Your task to perform on an android device: Search for the Best selling coffee table on Ikea Image 0: 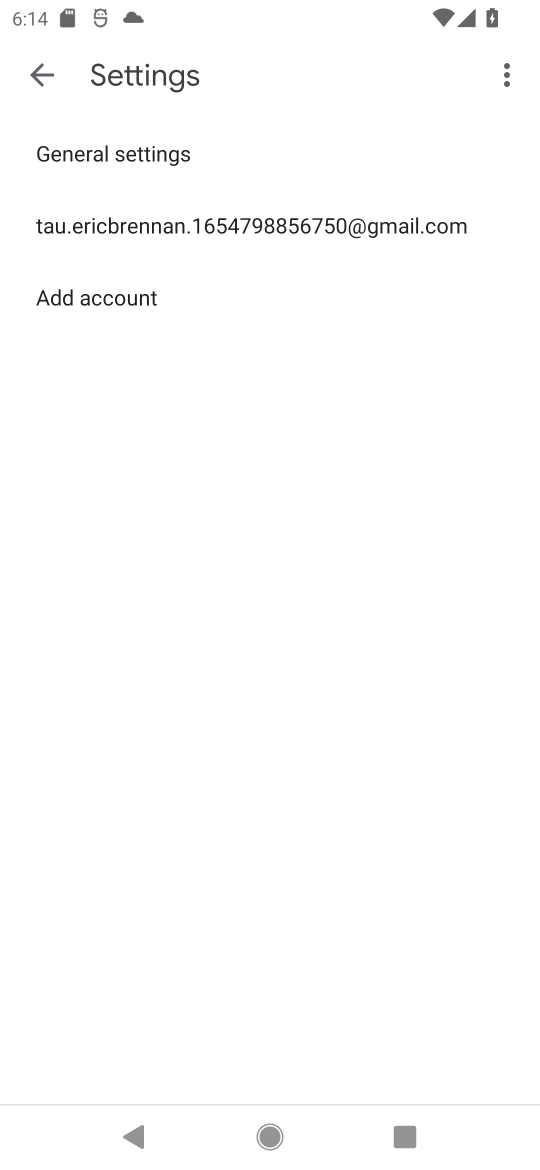
Step 0: press home button
Your task to perform on an android device: Search for the Best selling coffee table on Ikea Image 1: 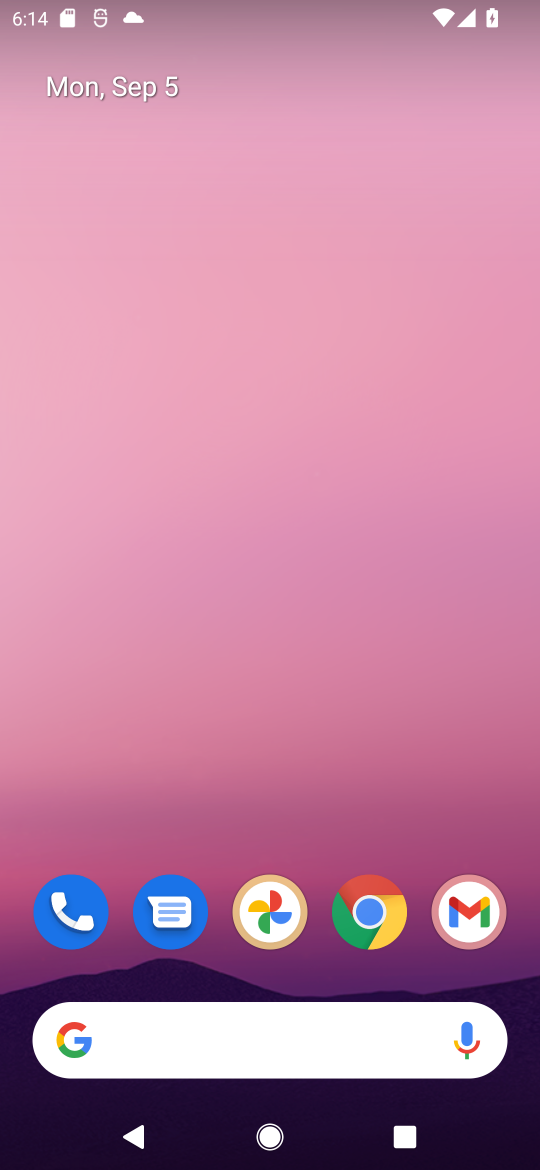
Step 1: click (364, 926)
Your task to perform on an android device: Search for the Best selling coffee table on Ikea Image 2: 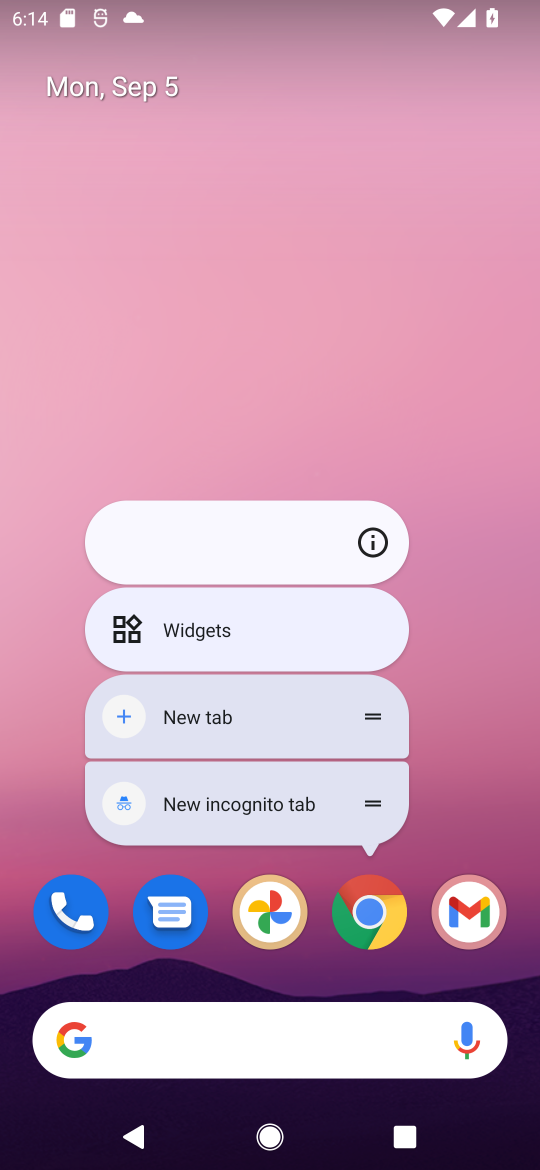
Step 2: click (362, 540)
Your task to perform on an android device: Search for the Best selling coffee table on Ikea Image 3: 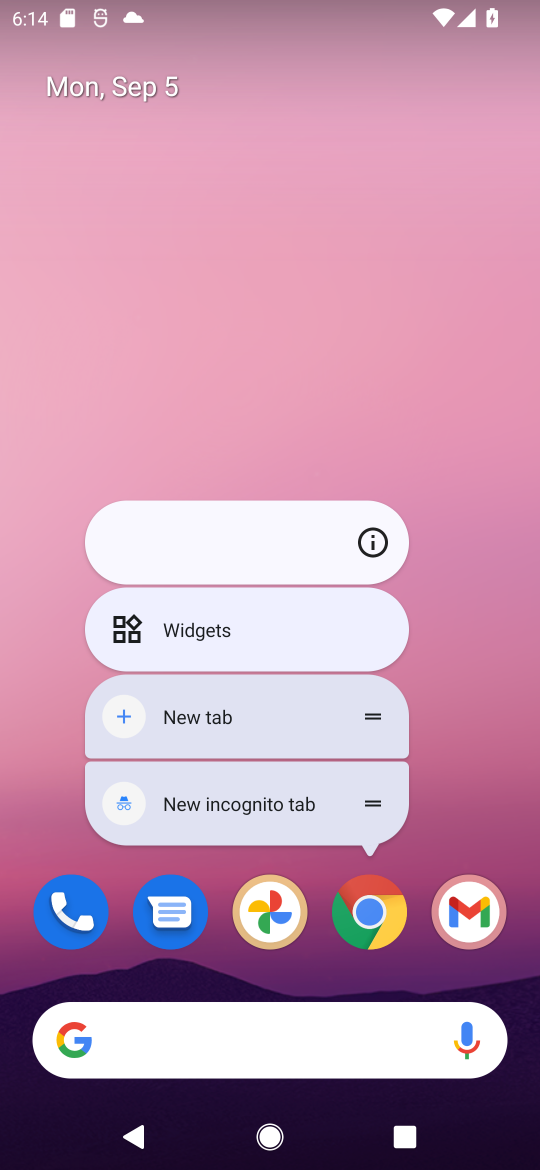
Step 3: click (362, 540)
Your task to perform on an android device: Search for the Best selling coffee table on Ikea Image 4: 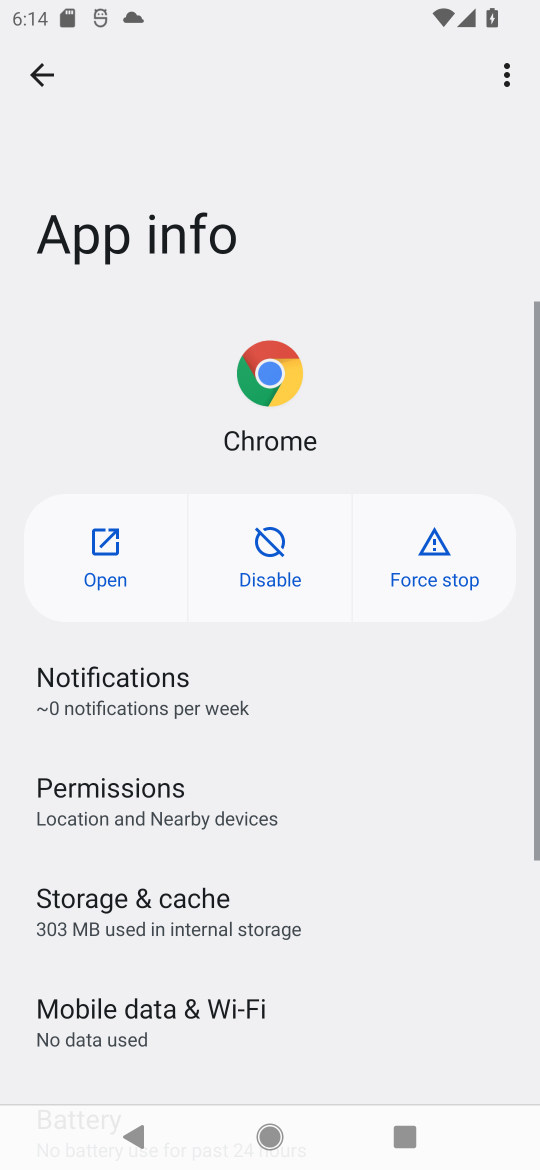
Step 4: click (110, 545)
Your task to perform on an android device: Search for the Best selling coffee table on Ikea Image 5: 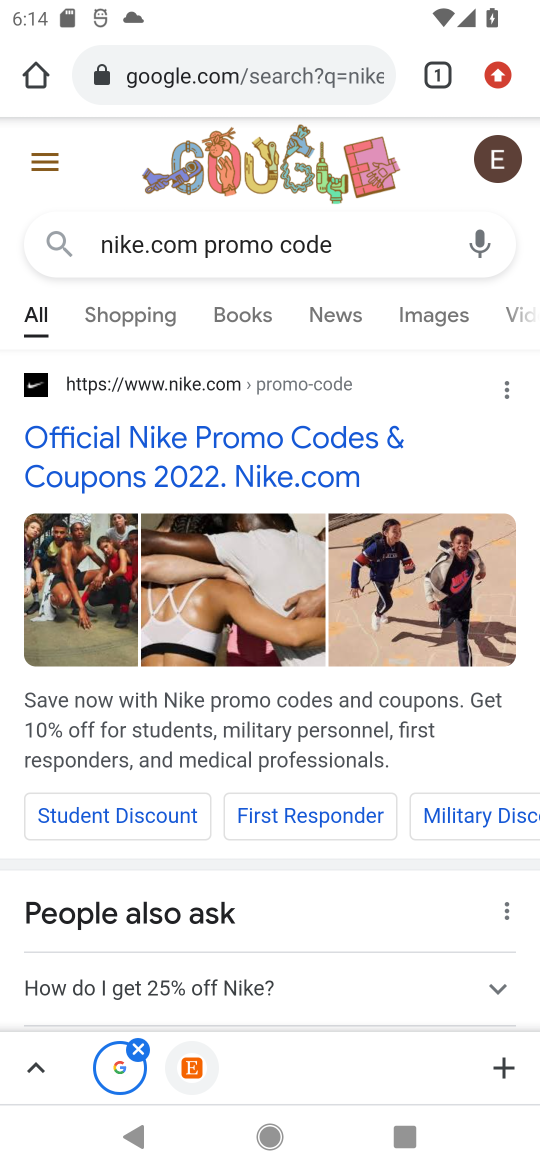
Step 5: click (190, 65)
Your task to perform on an android device: Search for the Best selling coffee table on Ikea Image 6: 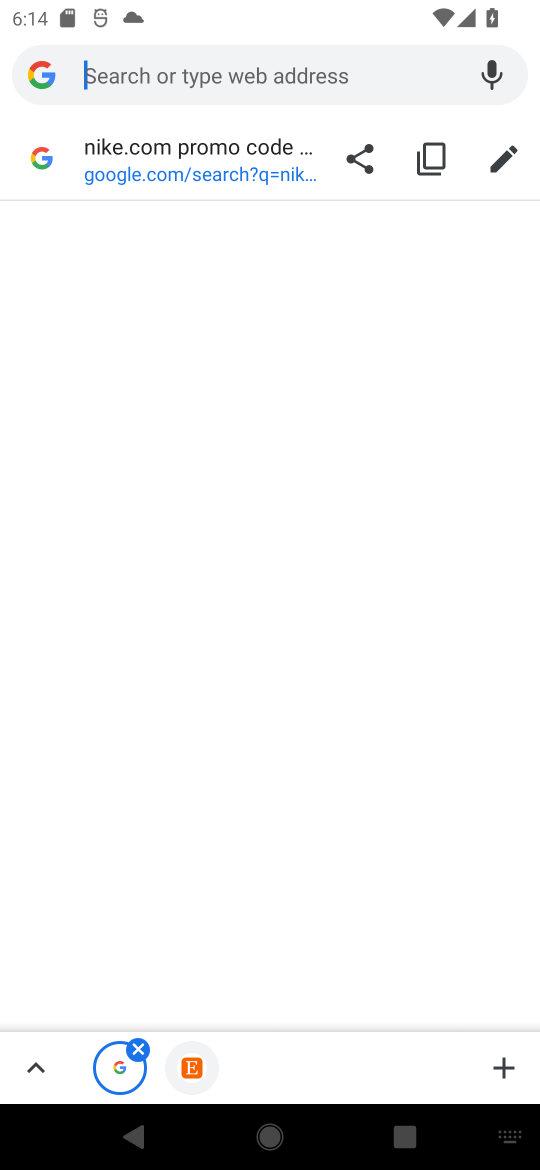
Step 6: type "Ikea"
Your task to perform on an android device: Search for the Best selling coffee table on Ikea Image 7: 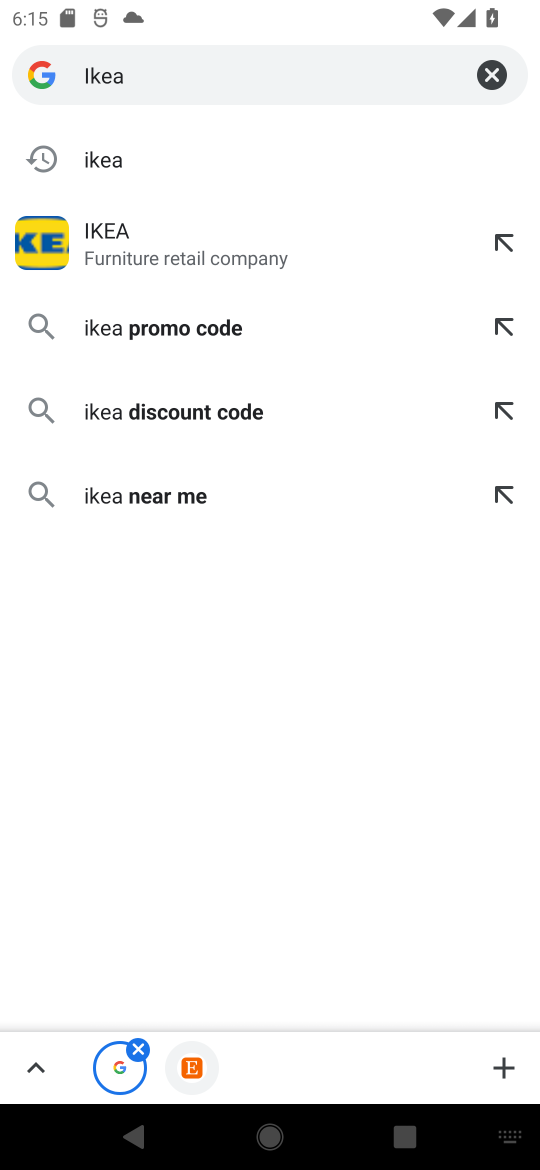
Step 7: click (189, 248)
Your task to perform on an android device: Search for the Best selling coffee table on Ikea Image 8: 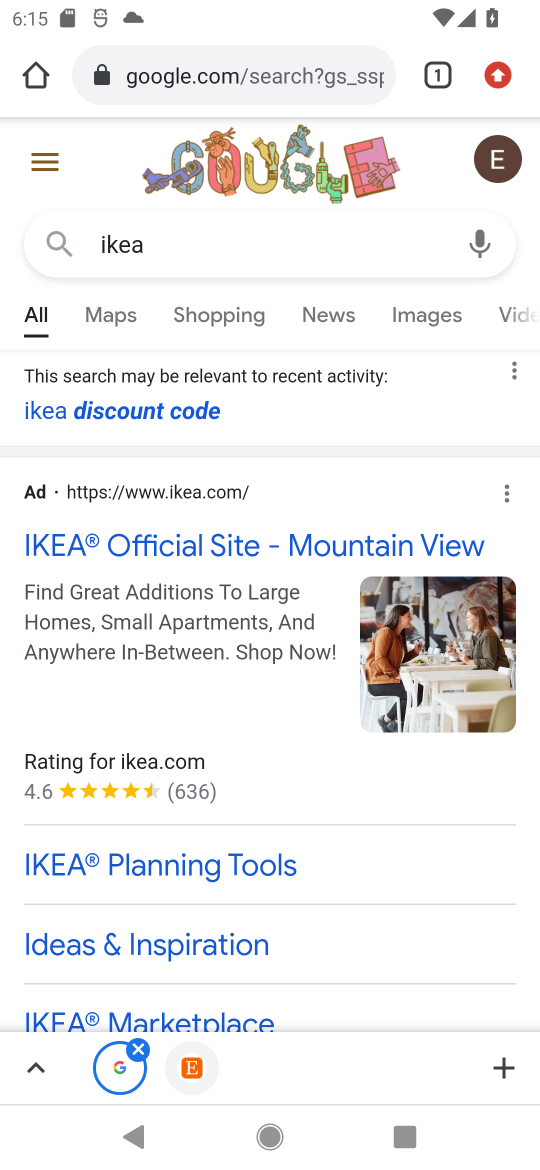
Step 8: click (141, 556)
Your task to perform on an android device: Search for the Best selling coffee table on Ikea Image 9: 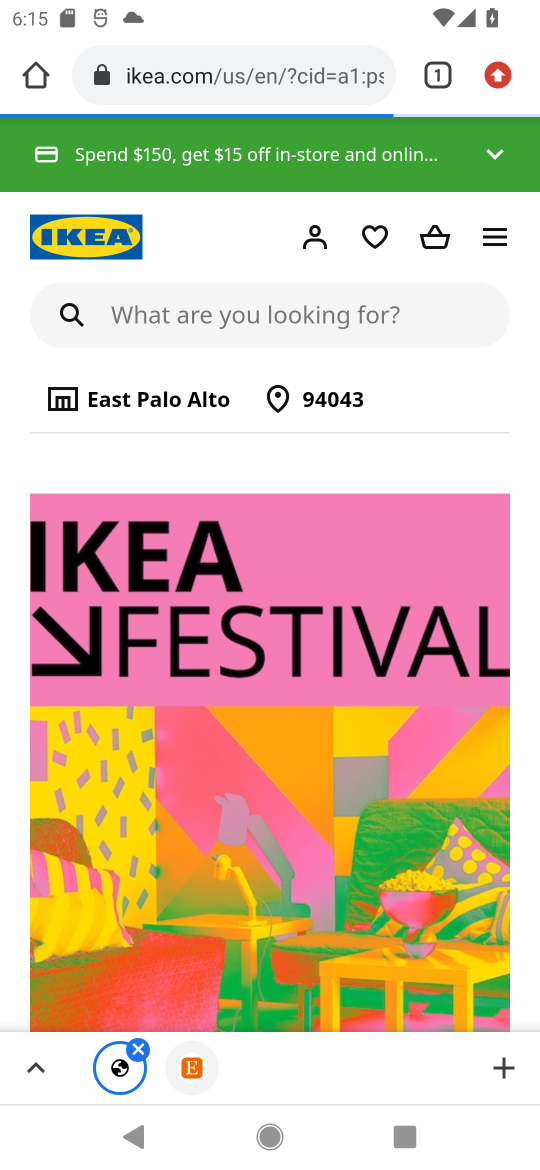
Step 9: click (306, 303)
Your task to perform on an android device: Search for the Best selling coffee table on Ikea Image 10: 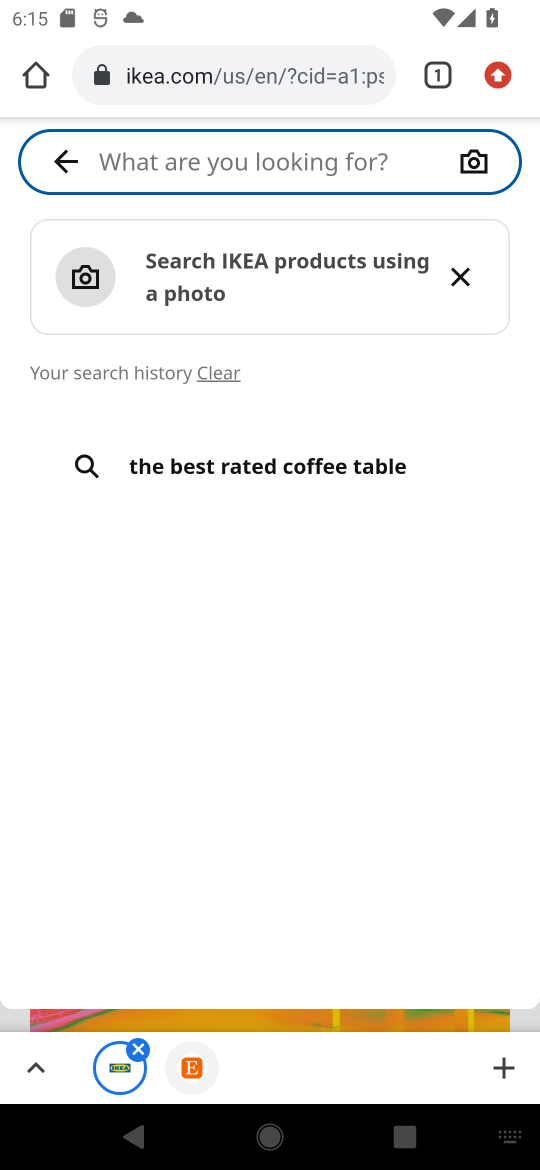
Step 10: click (374, 1169)
Your task to perform on an android device: Search for the Best selling coffee table on Ikea Image 11: 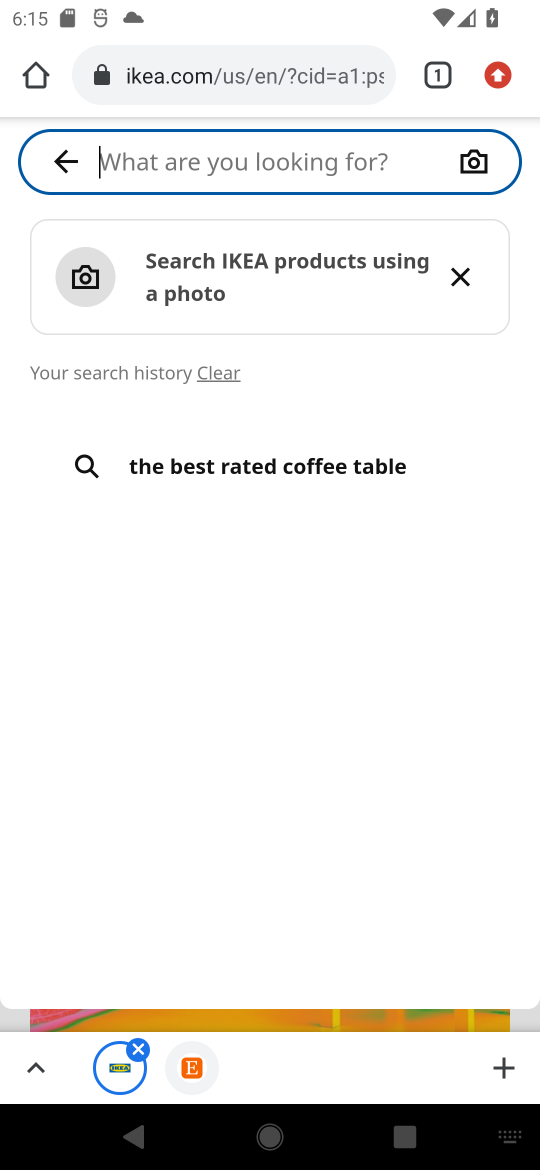
Step 11: type "the Best selling coffee table"
Your task to perform on an android device: Search for the Best selling coffee table on Ikea Image 12: 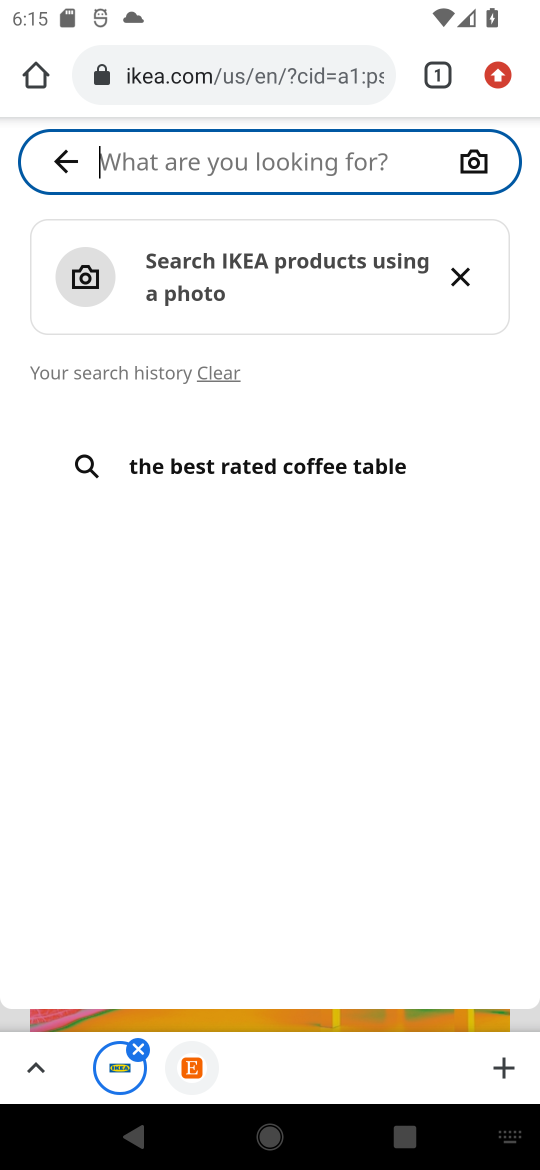
Step 12: drag from (374, 1169) to (480, 59)
Your task to perform on an android device: Search for the Best selling coffee table on Ikea Image 13: 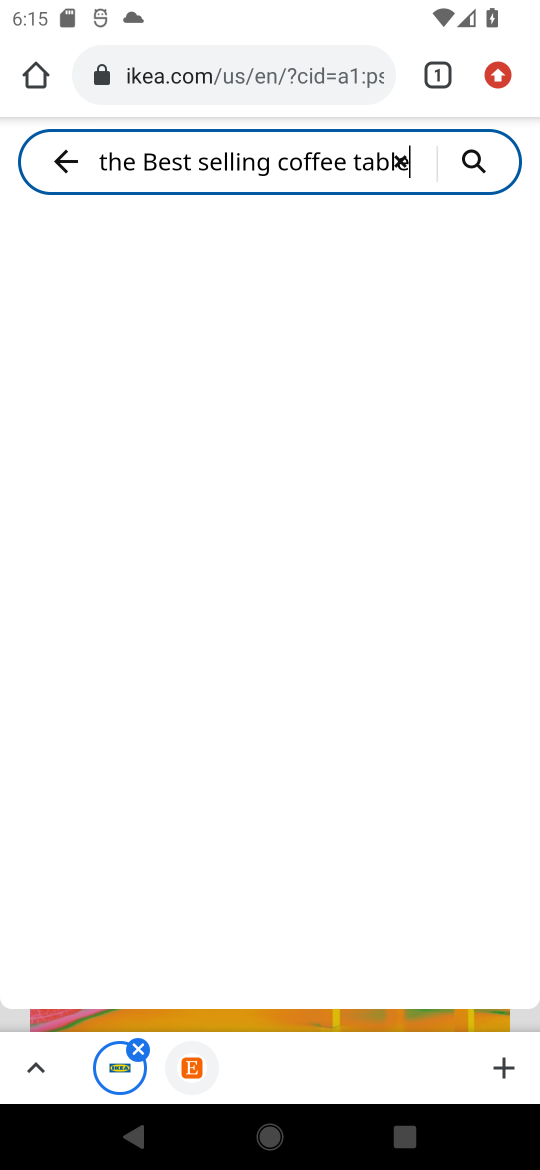
Step 13: click (473, 164)
Your task to perform on an android device: Search for the Best selling coffee table on Ikea Image 14: 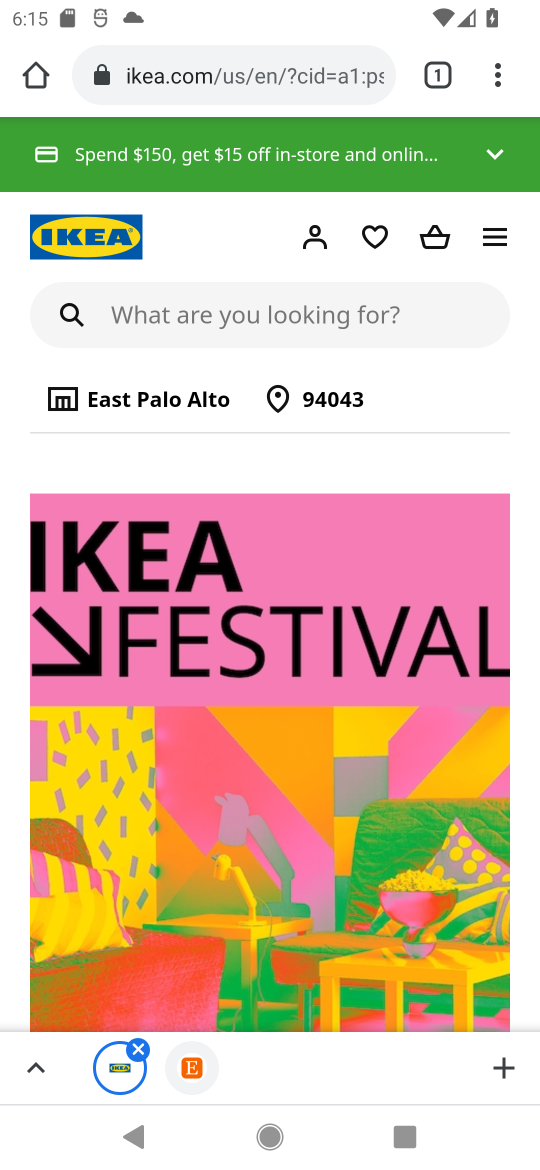
Step 14: click (350, 310)
Your task to perform on an android device: Search for the Best selling coffee table on Ikea Image 15: 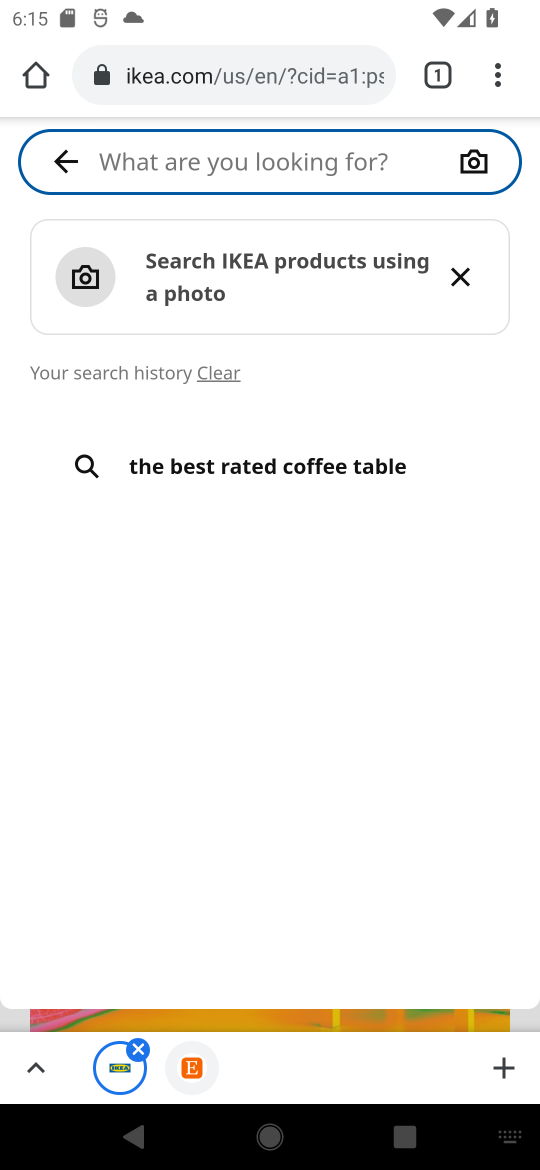
Step 15: type "the Best selling coffee table"
Your task to perform on an android device: Search for the Best selling coffee table on Ikea Image 16: 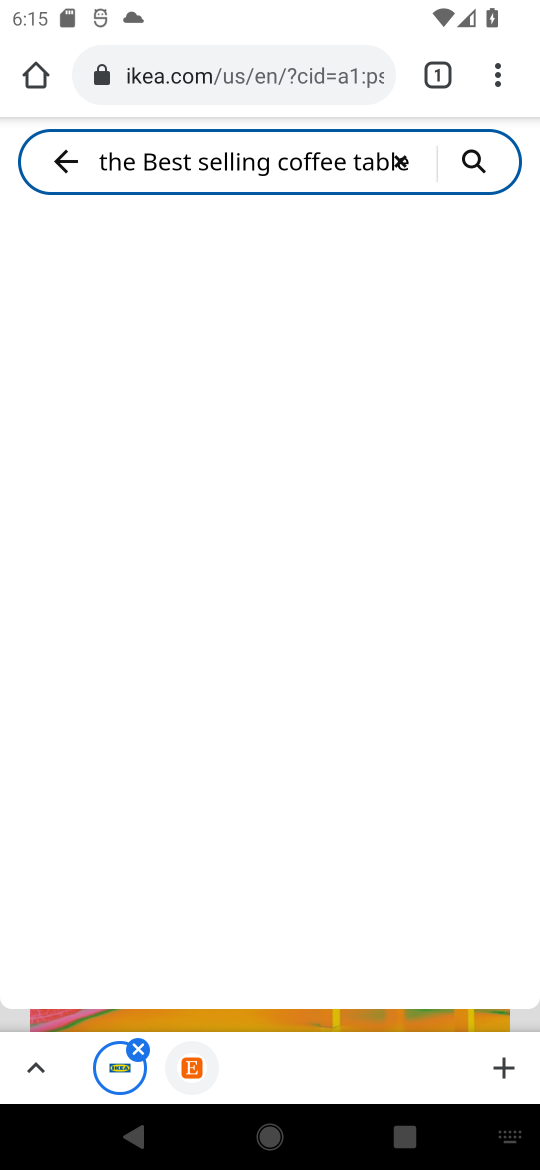
Step 16: click (473, 160)
Your task to perform on an android device: Search for the Best selling coffee table on Ikea Image 17: 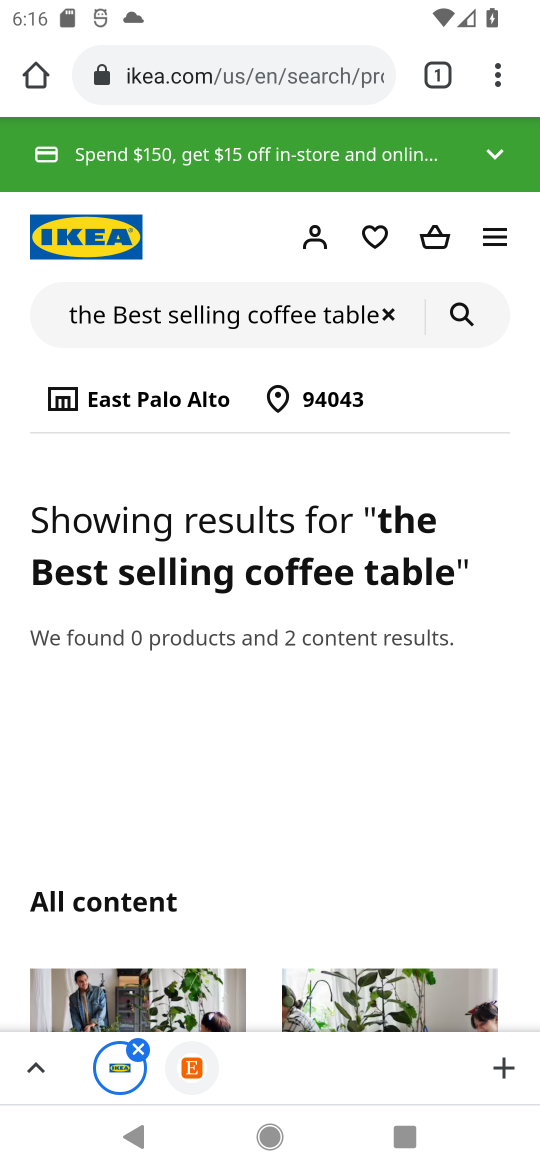
Step 17: press home button
Your task to perform on an android device: Search for the Best selling coffee table on Ikea Image 18: 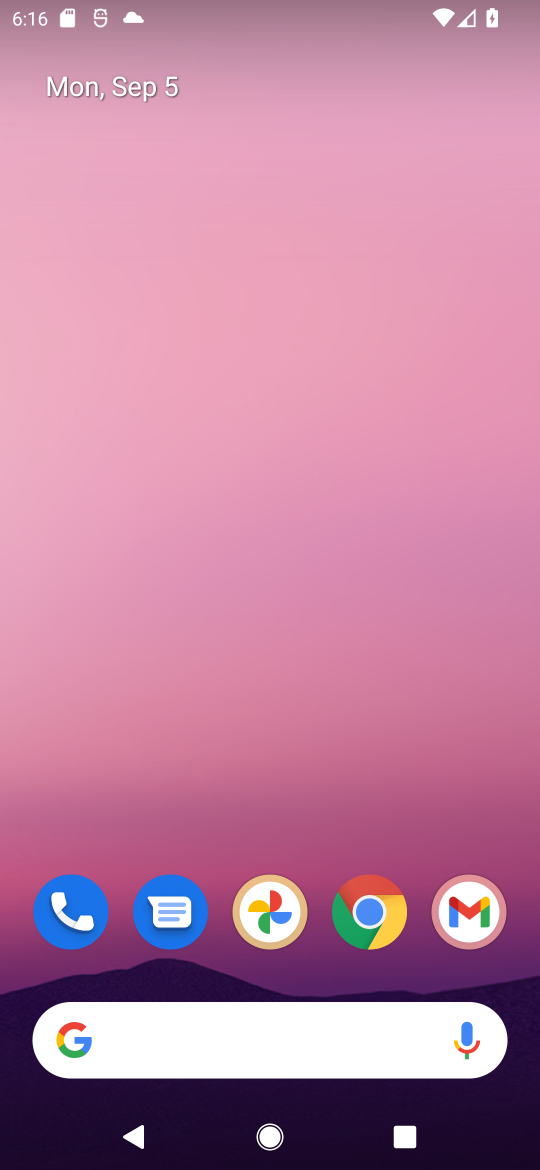
Step 18: click (370, 908)
Your task to perform on an android device: Search for the Best selling coffee table on Ikea Image 19: 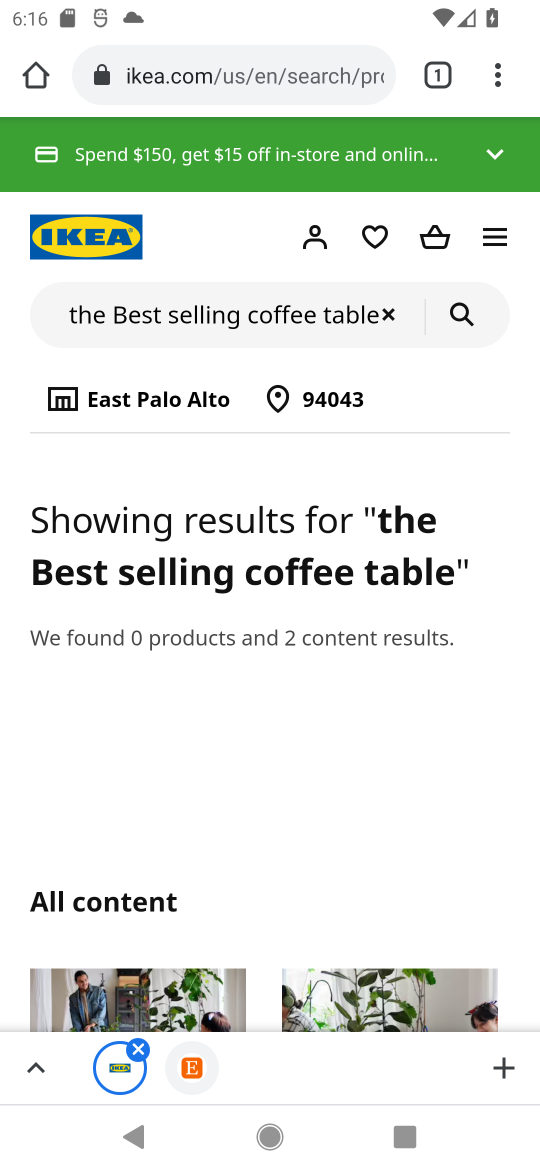
Step 19: click (469, 318)
Your task to perform on an android device: Search for the Best selling coffee table on Ikea Image 20: 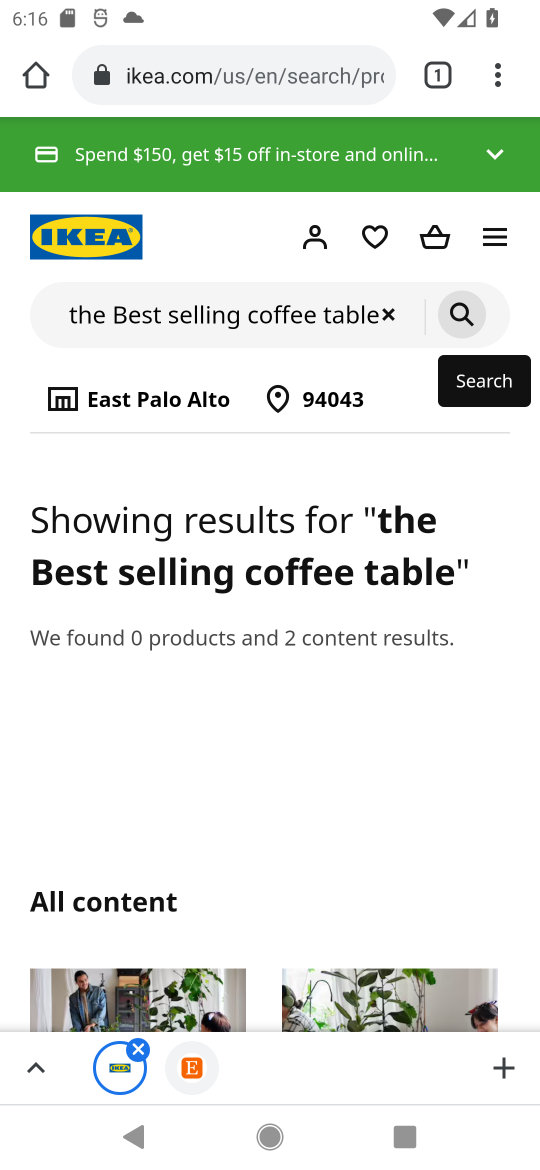
Step 20: task complete